Your task to perform on an android device: Check the news Image 0: 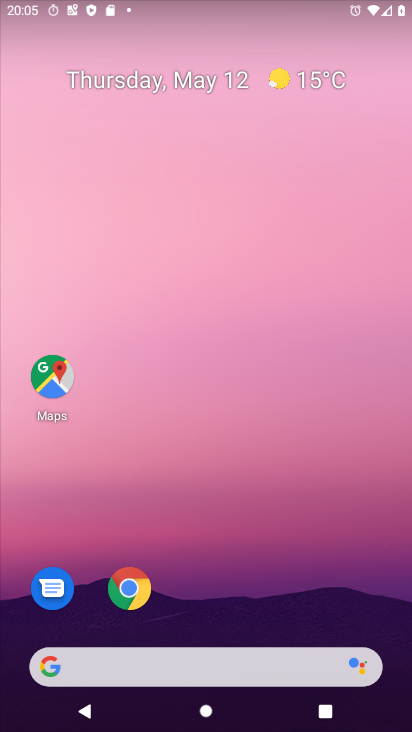
Step 0: click (126, 593)
Your task to perform on an android device: Check the news Image 1: 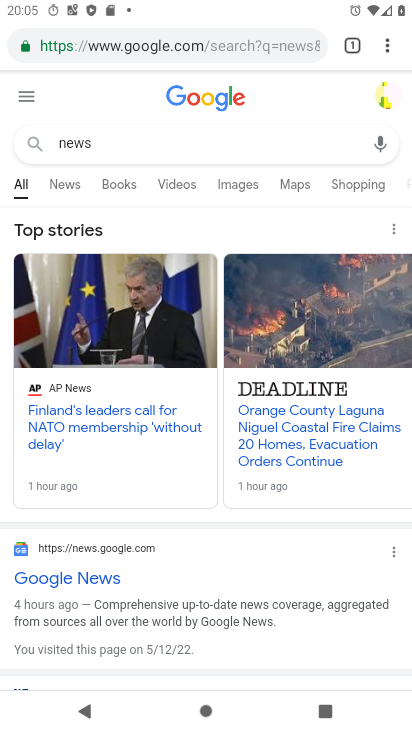
Step 1: click (128, 55)
Your task to perform on an android device: Check the news Image 2: 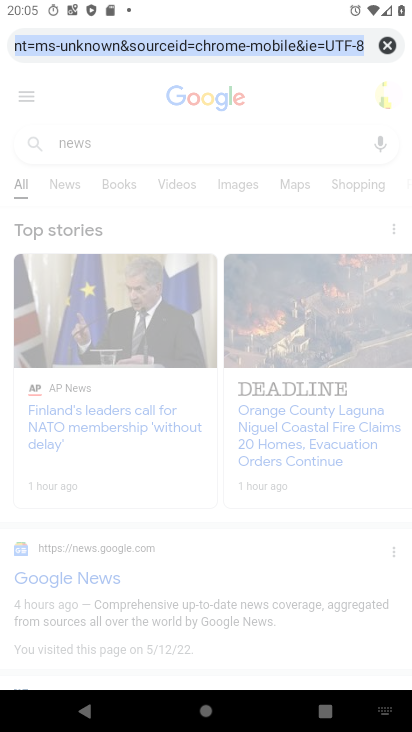
Step 2: type "news"
Your task to perform on an android device: Check the news Image 3: 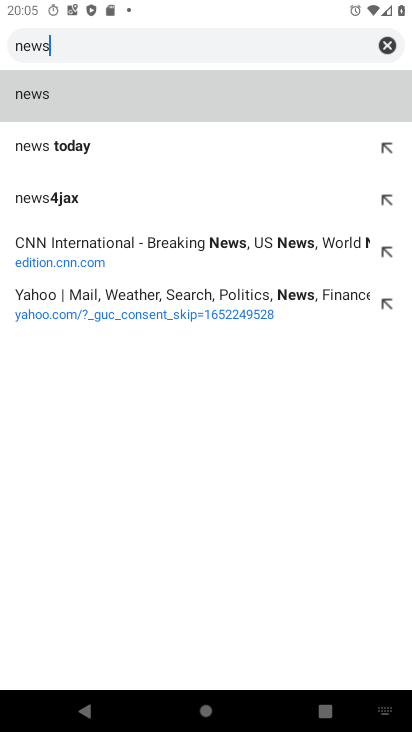
Step 3: click (118, 120)
Your task to perform on an android device: Check the news Image 4: 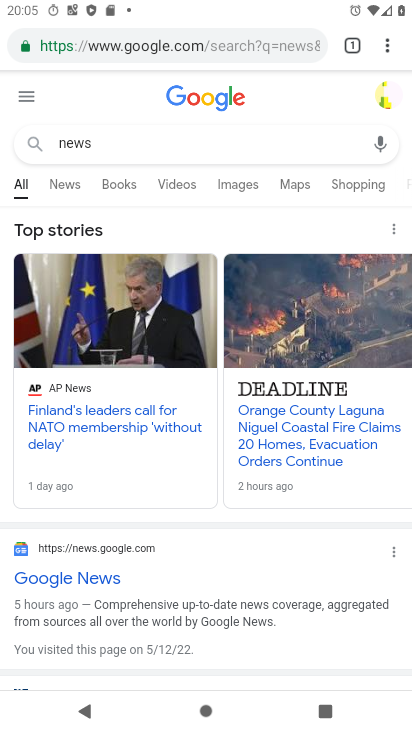
Step 4: task complete